Your task to perform on an android device: Play the last video I watched on Youtube Image 0: 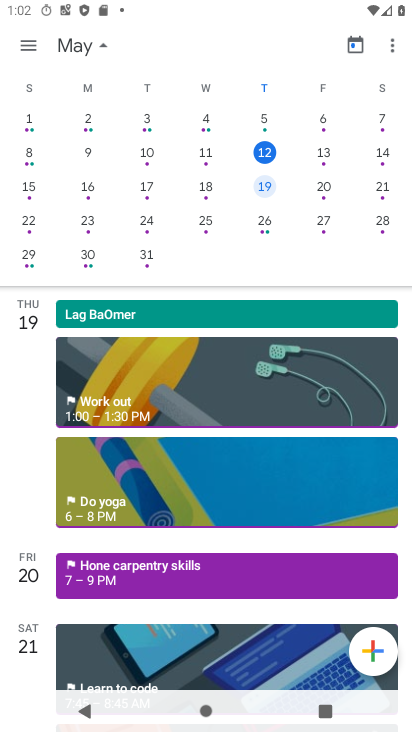
Step 0: press home button
Your task to perform on an android device: Play the last video I watched on Youtube Image 1: 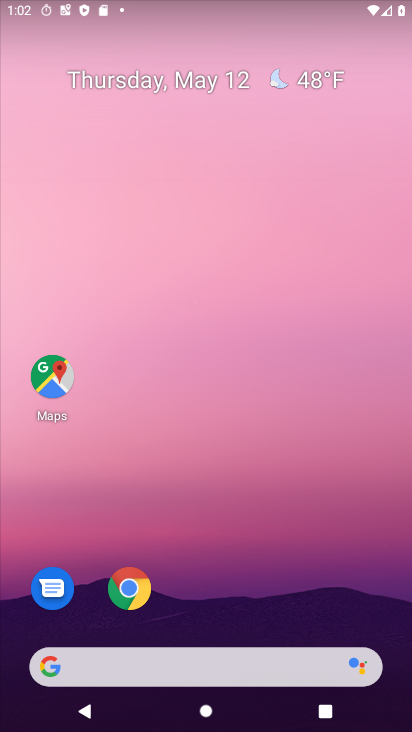
Step 1: drag from (239, 583) to (295, 92)
Your task to perform on an android device: Play the last video I watched on Youtube Image 2: 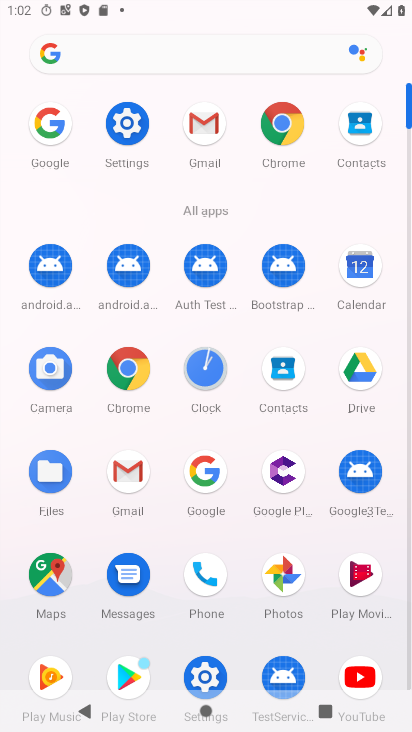
Step 2: click (363, 678)
Your task to perform on an android device: Play the last video I watched on Youtube Image 3: 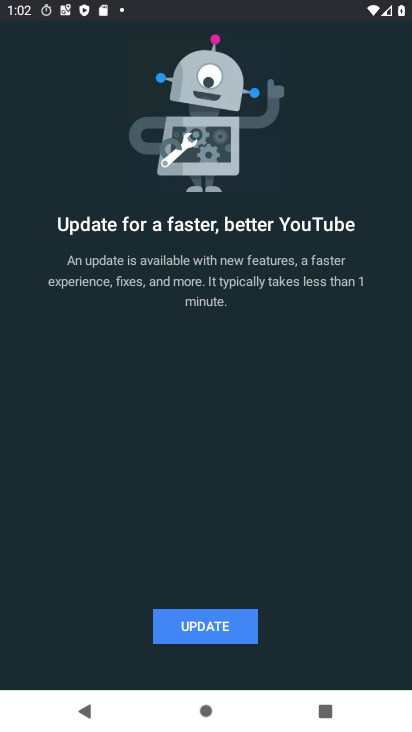
Step 3: click (210, 625)
Your task to perform on an android device: Play the last video I watched on Youtube Image 4: 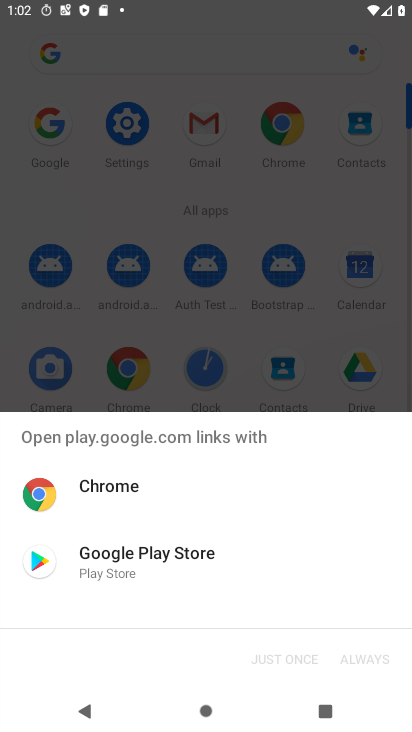
Step 4: click (135, 572)
Your task to perform on an android device: Play the last video I watched on Youtube Image 5: 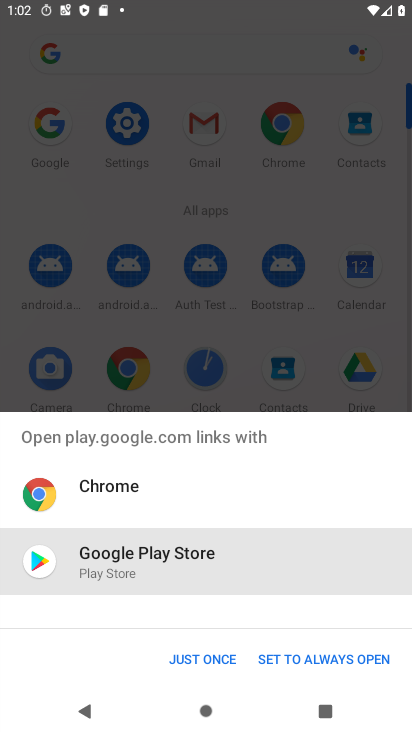
Step 5: click (217, 662)
Your task to perform on an android device: Play the last video I watched on Youtube Image 6: 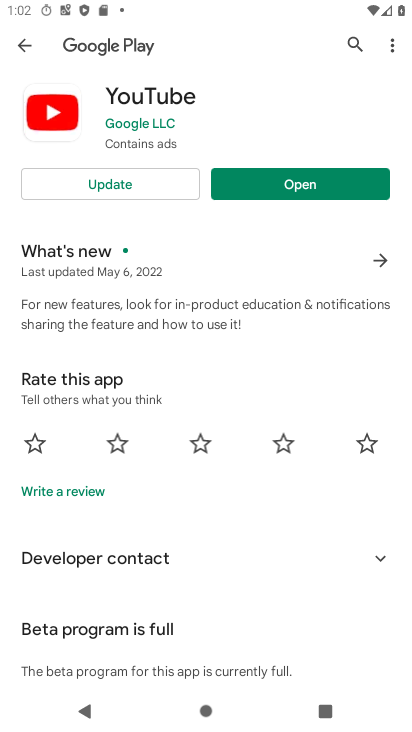
Step 6: click (118, 189)
Your task to perform on an android device: Play the last video I watched on Youtube Image 7: 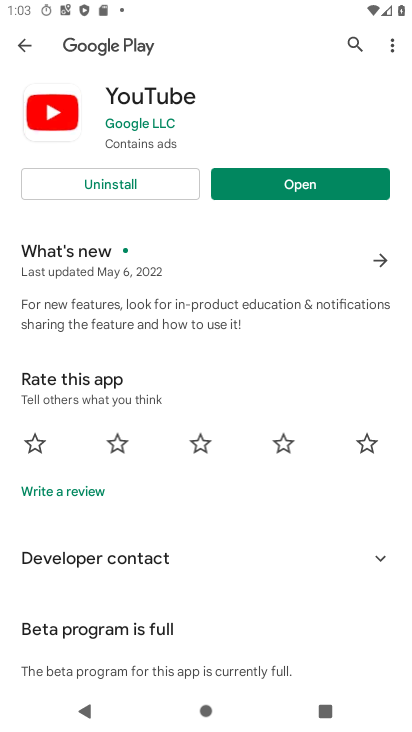
Step 7: click (294, 190)
Your task to perform on an android device: Play the last video I watched on Youtube Image 8: 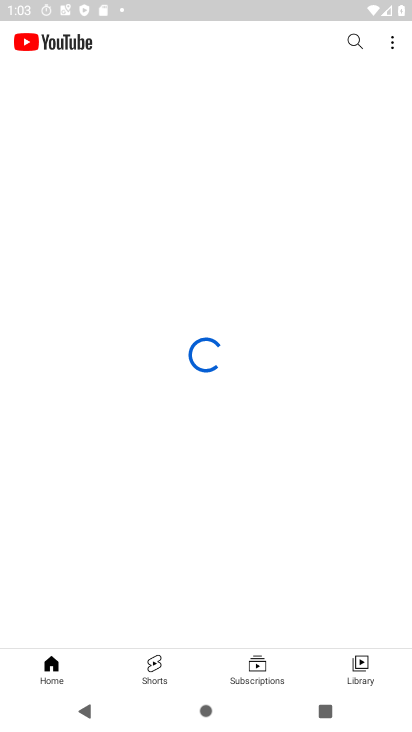
Step 8: click (352, 38)
Your task to perform on an android device: Play the last video I watched on Youtube Image 9: 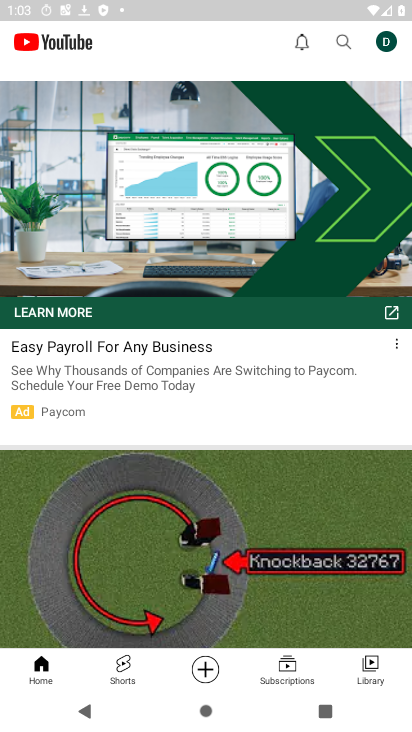
Step 9: click (335, 32)
Your task to perform on an android device: Play the last video I watched on Youtube Image 10: 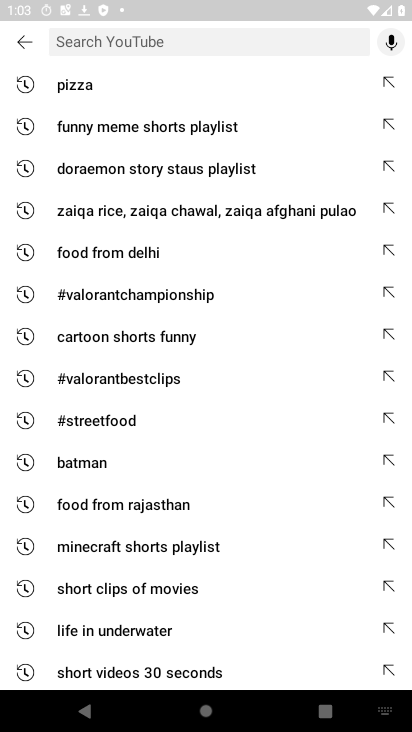
Step 10: click (108, 83)
Your task to perform on an android device: Play the last video I watched on Youtube Image 11: 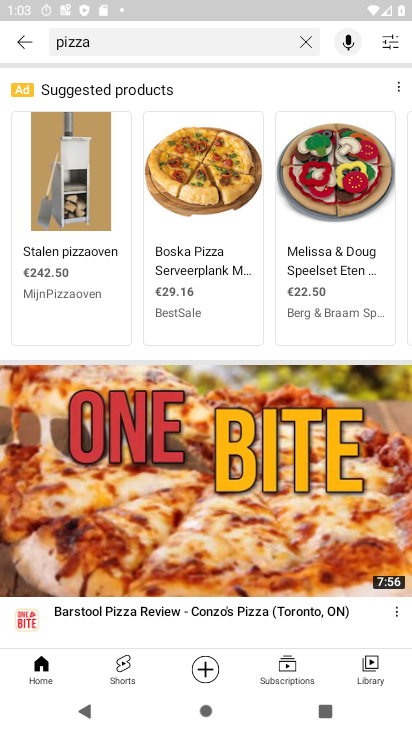
Step 11: click (158, 507)
Your task to perform on an android device: Play the last video I watched on Youtube Image 12: 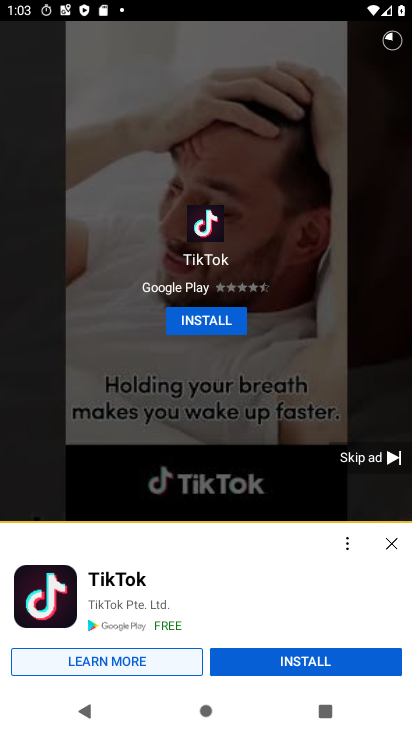
Step 12: click (364, 462)
Your task to perform on an android device: Play the last video I watched on Youtube Image 13: 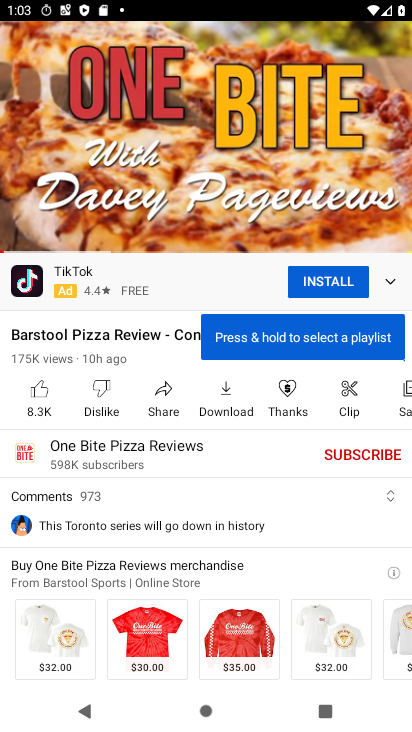
Step 13: task complete